Your task to perform on an android device: find photos in the google photos app Image 0: 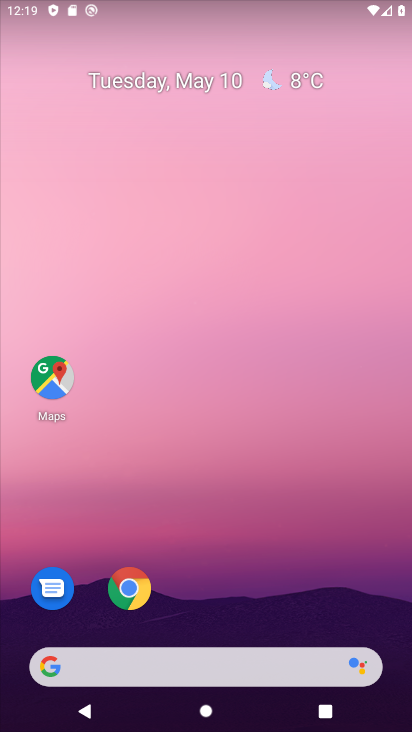
Step 0: drag from (228, 585) to (291, 233)
Your task to perform on an android device: find photos in the google photos app Image 1: 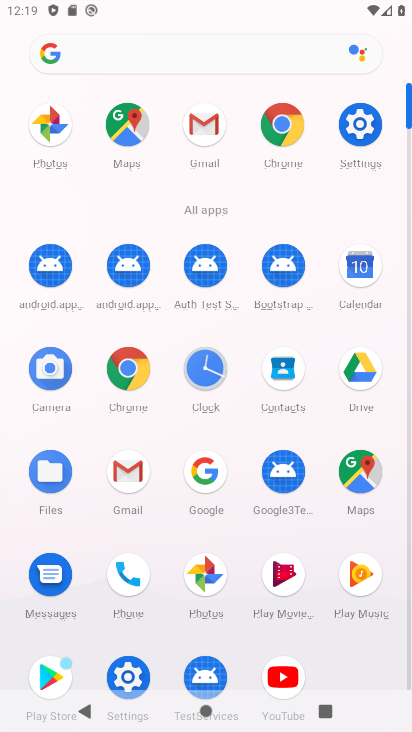
Step 1: click (201, 579)
Your task to perform on an android device: find photos in the google photos app Image 2: 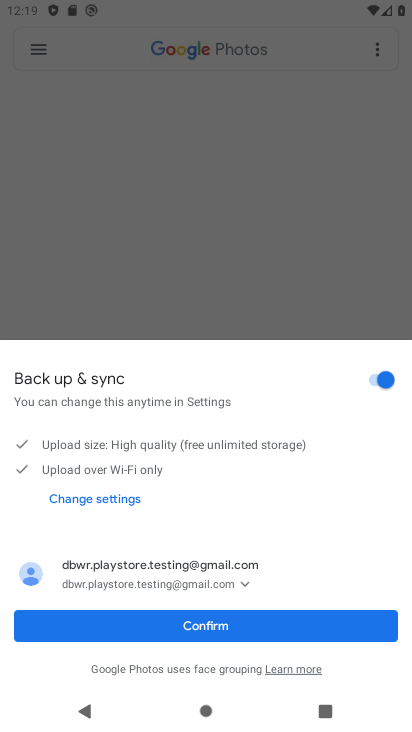
Step 2: click (255, 633)
Your task to perform on an android device: find photos in the google photos app Image 3: 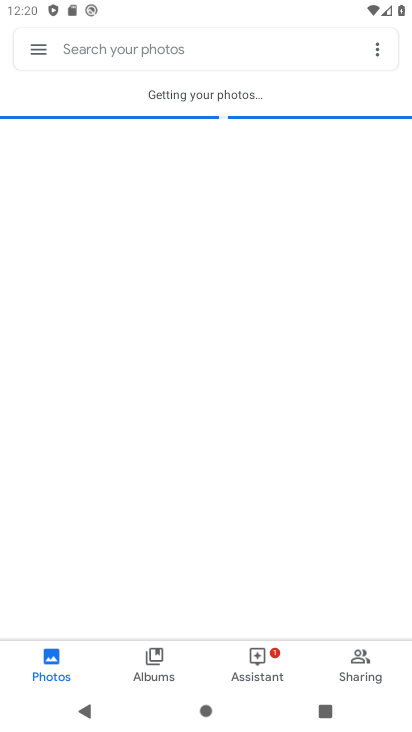
Step 3: click (51, 664)
Your task to perform on an android device: find photos in the google photos app Image 4: 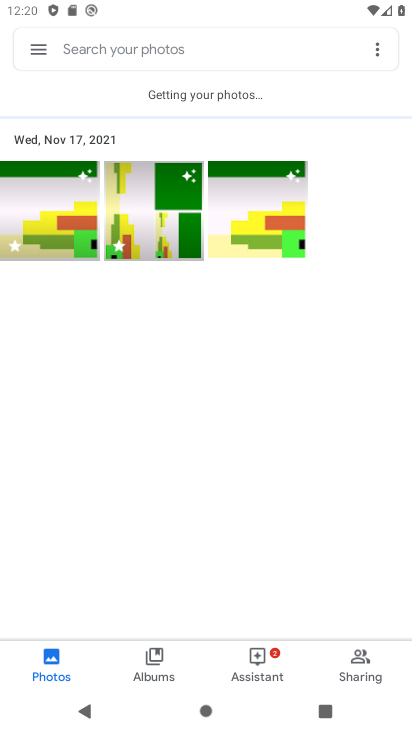
Step 4: task complete